Your task to perform on an android device: What's on my calendar tomorrow? Image 0: 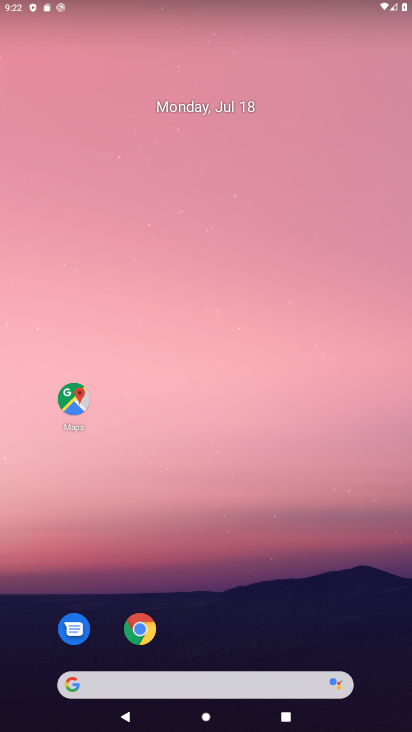
Step 0: drag from (220, 685) to (180, 197)
Your task to perform on an android device: What's on my calendar tomorrow? Image 1: 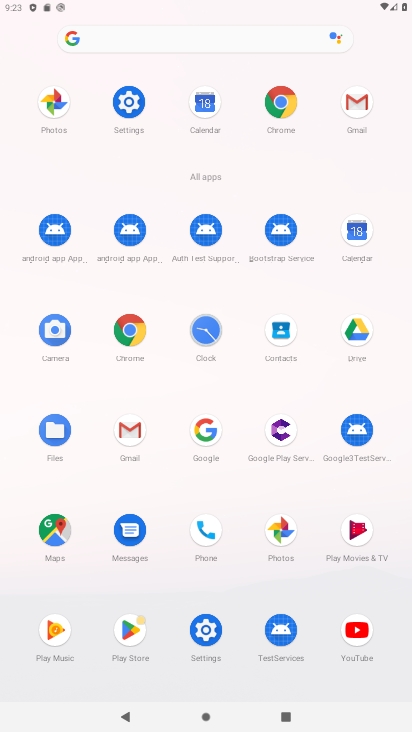
Step 1: click (359, 235)
Your task to perform on an android device: What's on my calendar tomorrow? Image 2: 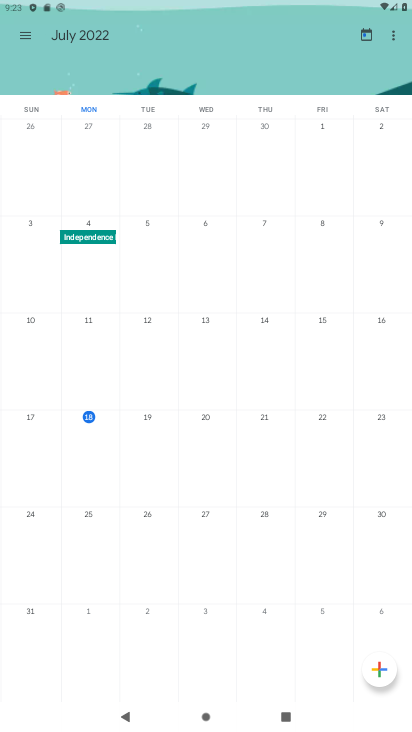
Step 2: click (18, 35)
Your task to perform on an android device: What's on my calendar tomorrow? Image 3: 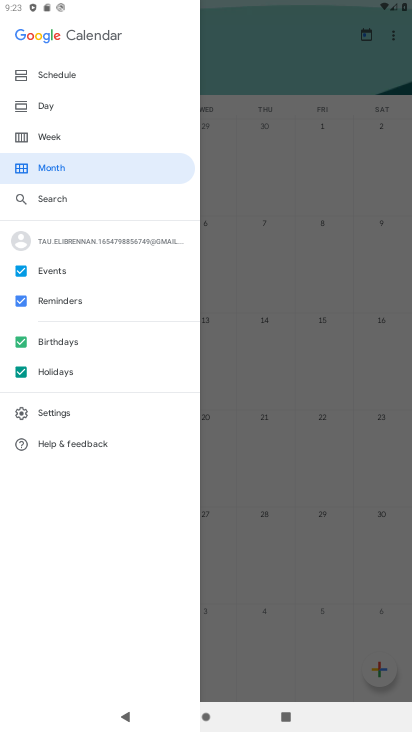
Step 3: click (53, 79)
Your task to perform on an android device: What's on my calendar tomorrow? Image 4: 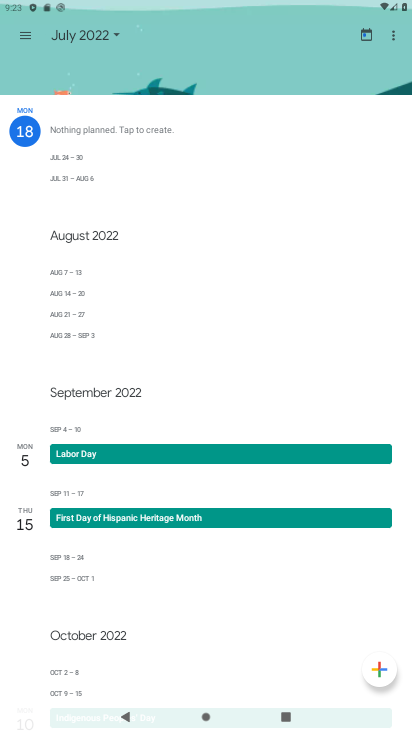
Step 4: click (65, 162)
Your task to perform on an android device: What's on my calendar tomorrow? Image 5: 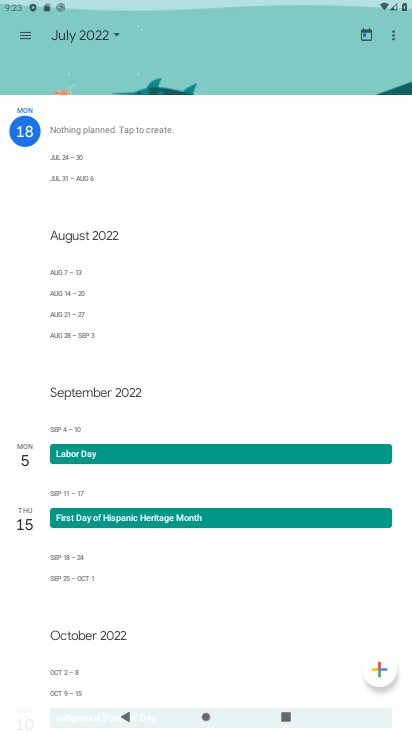
Step 5: click (112, 32)
Your task to perform on an android device: What's on my calendar tomorrow? Image 6: 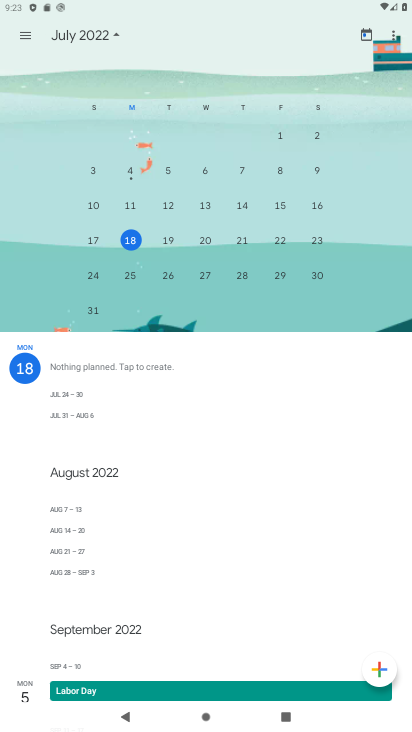
Step 6: click (167, 242)
Your task to perform on an android device: What's on my calendar tomorrow? Image 7: 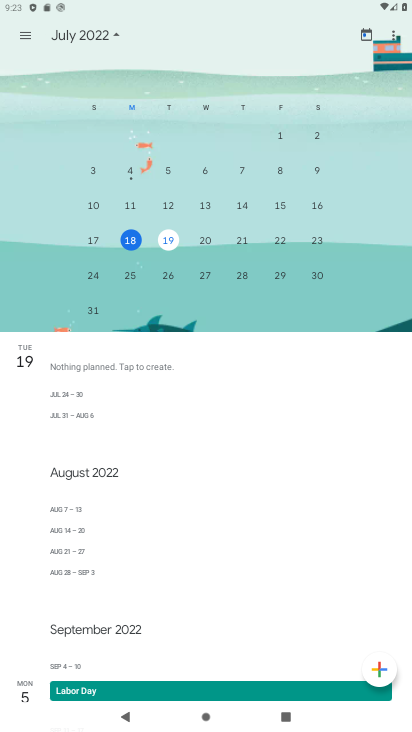
Step 7: task complete